Your task to perform on an android device: Go to CNN.com Image 0: 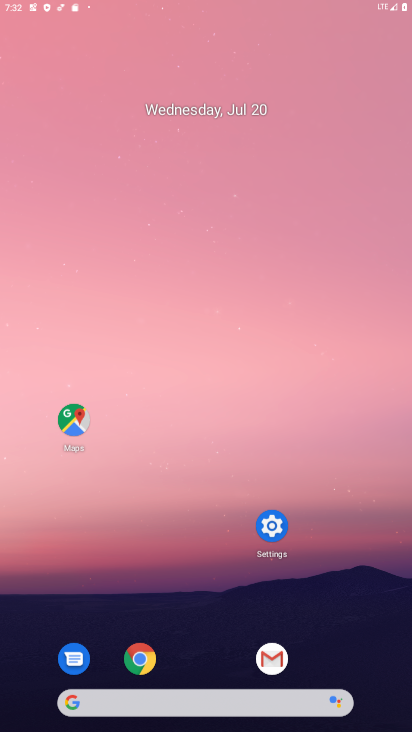
Step 0: press home button
Your task to perform on an android device: Go to CNN.com Image 1: 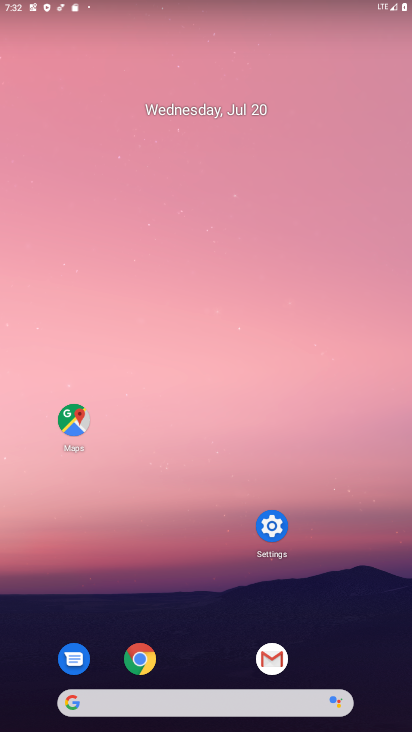
Step 1: click (135, 655)
Your task to perform on an android device: Go to CNN.com Image 2: 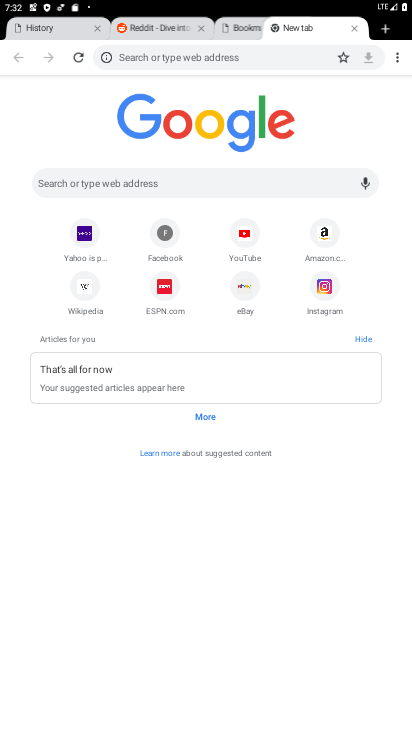
Step 2: click (107, 182)
Your task to perform on an android device: Go to CNN.com Image 3: 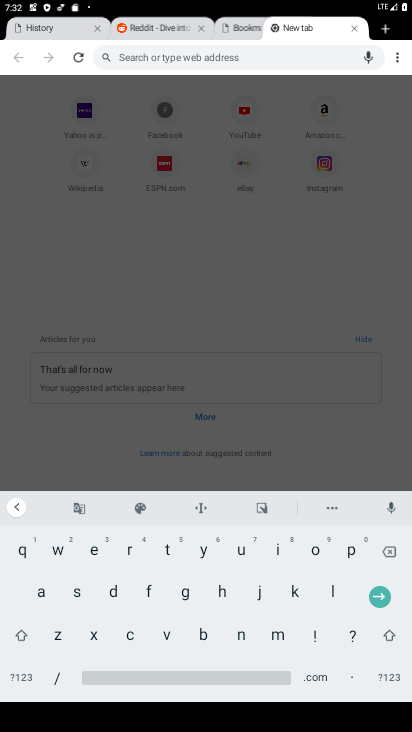
Step 3: click (117, 632)
Your task to perform on an android device: Go to CNN.com Image 4: 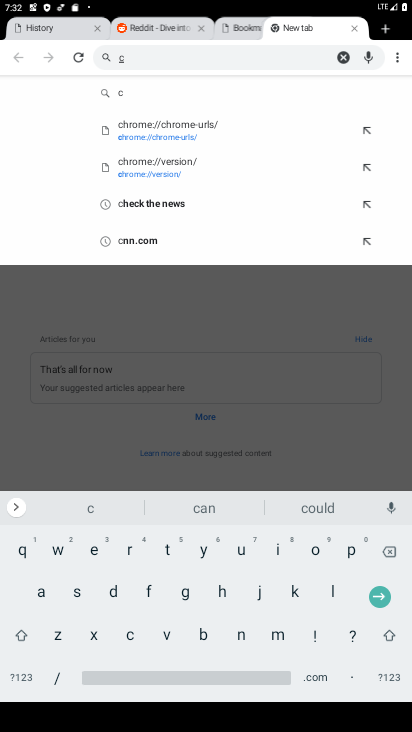
Step 4: click (154, 244)
Your task to perform on an android device: Go to CNN.com Image 5: 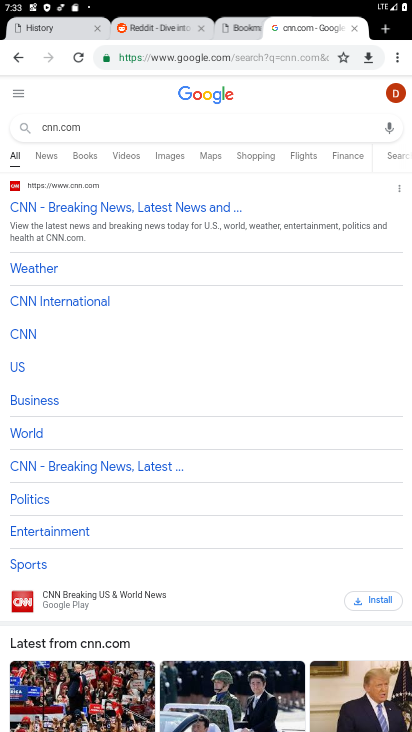
Step 5: click (57, 211)
Your task to perform on an android device: Go to CNN.com Image 6: 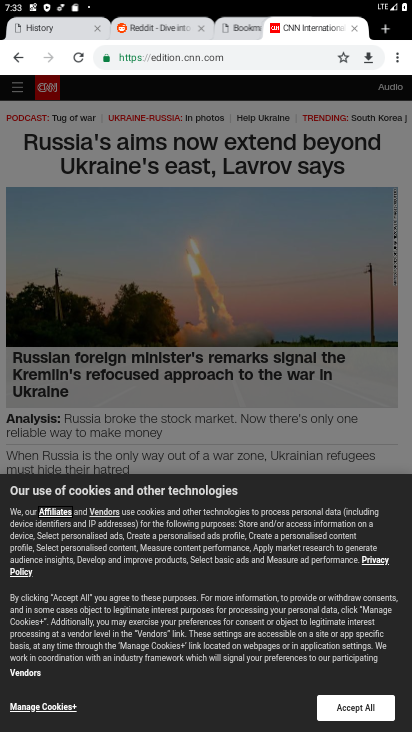
Step 6: task complete